Your task to perform on an android device: turn off priority inbox in the gmail app Image 0: 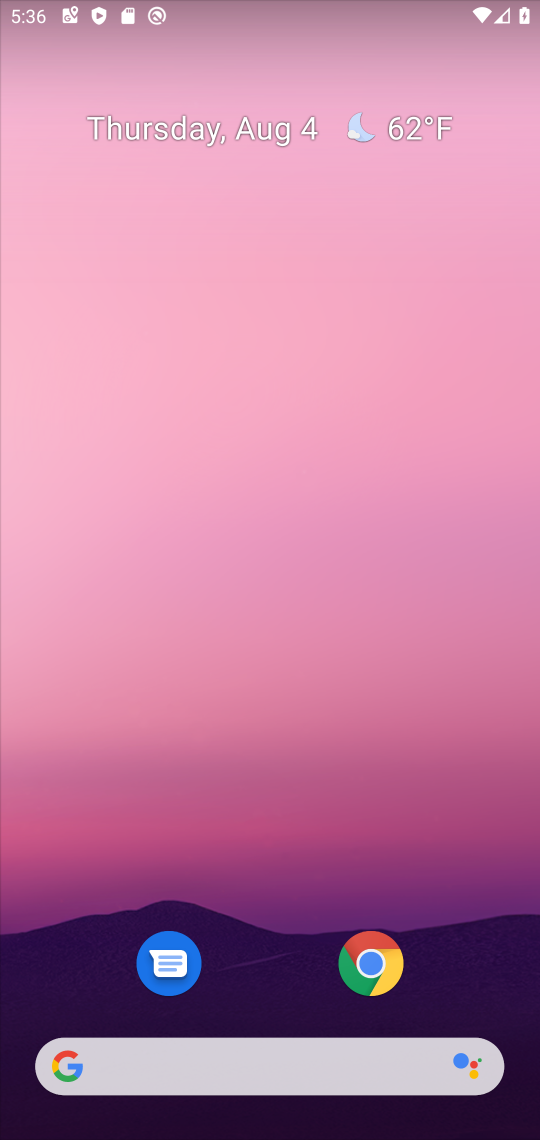
Step 0: press home button
Your task to perform on an android device: turn off priority inbox in the gmail app Image 1: 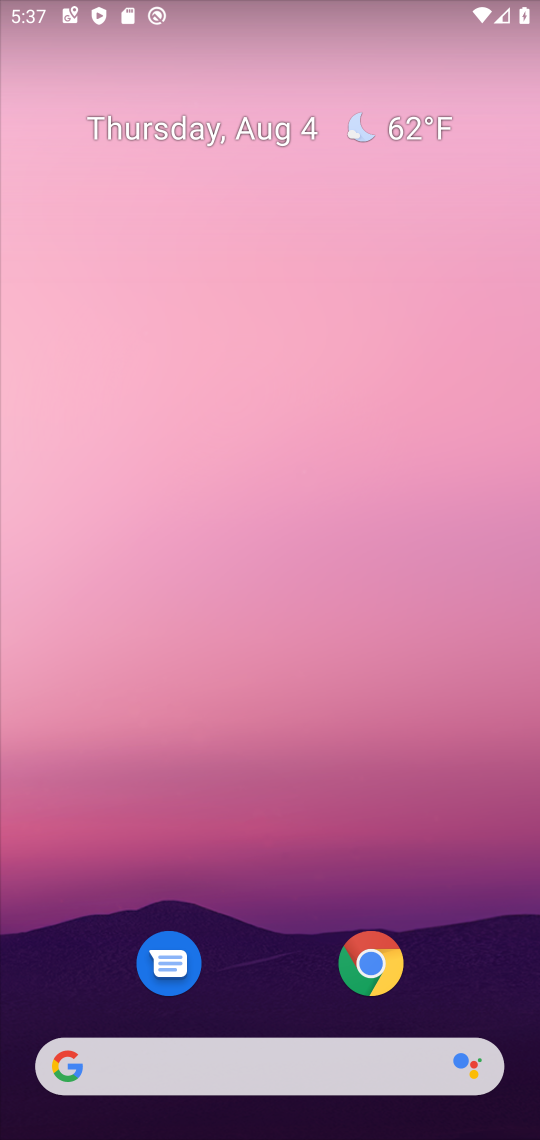
Step 1: drag from (271, 912) to (271, 131)
Your task to perform on an android device: turn off priority inbox in the gmail app Image 2: 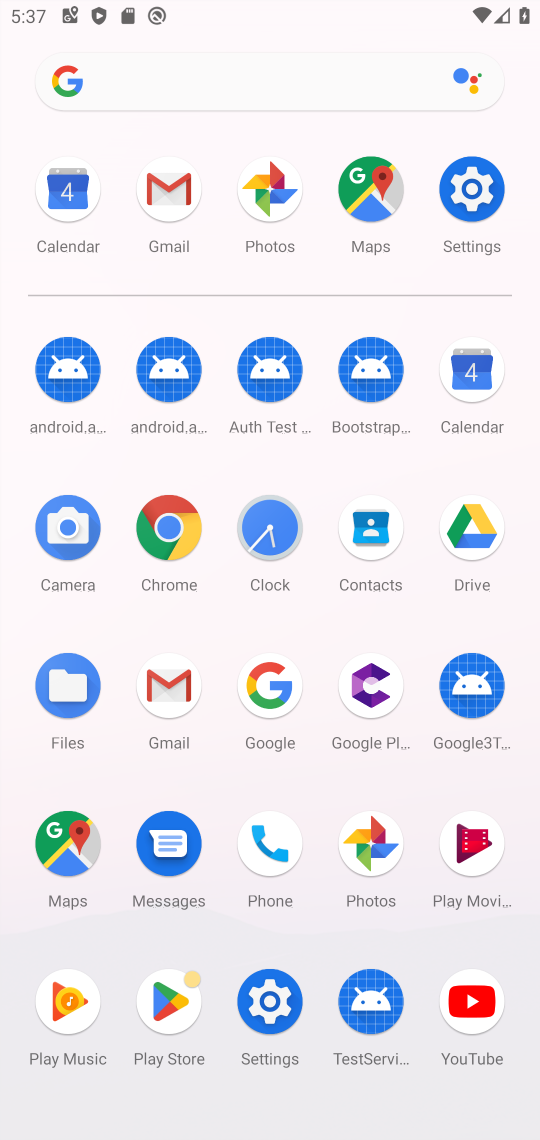
Step 2: click (169, 674)
Your task to perform on an android device: turn off priority inbox in the gmail app Image 3: 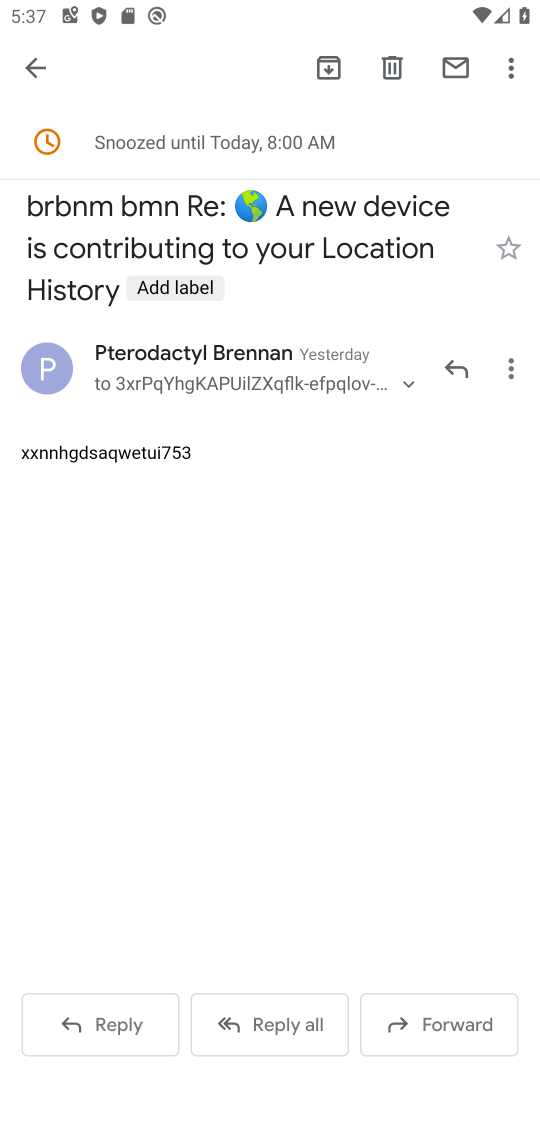
Step 3: click (30, 68)
Your task to perform on an android device: turn off priority inbox in the gmail app Image 4: 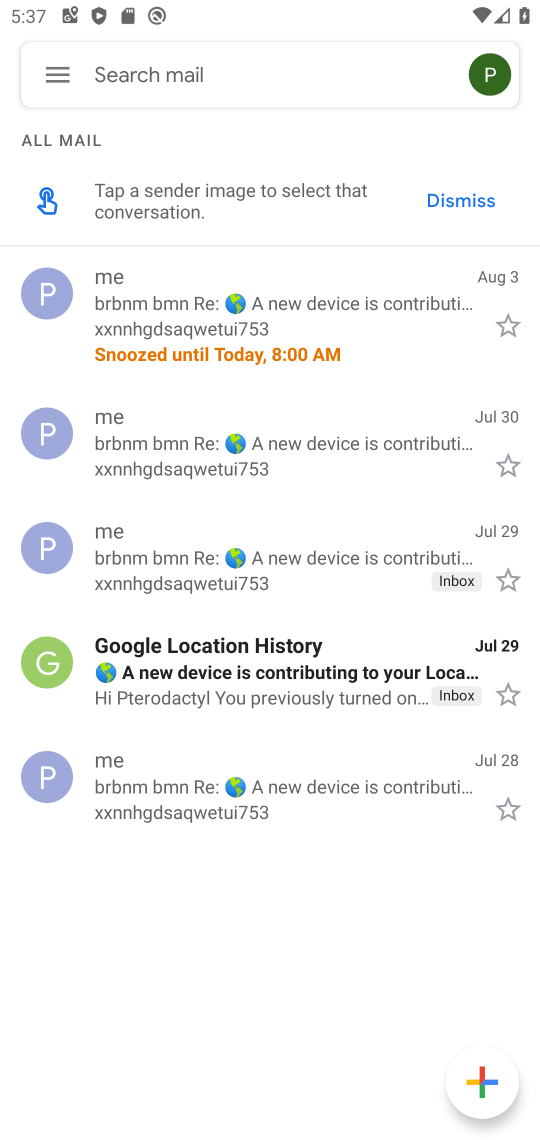
Step 4: click (47, 82)
Your task to perform on an android device: turn off priority inbox in the gmail app Image 5: 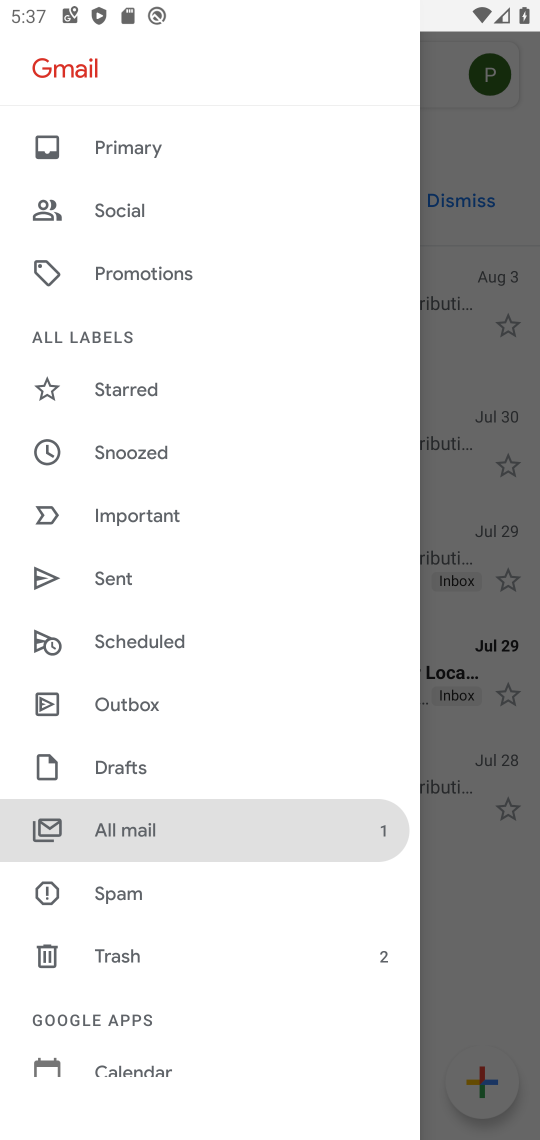
Step 5: drag from (208, 1002) to (248, 449)
Your task to perform on an android device: turn off priority inbox in the gmail app Image 6: 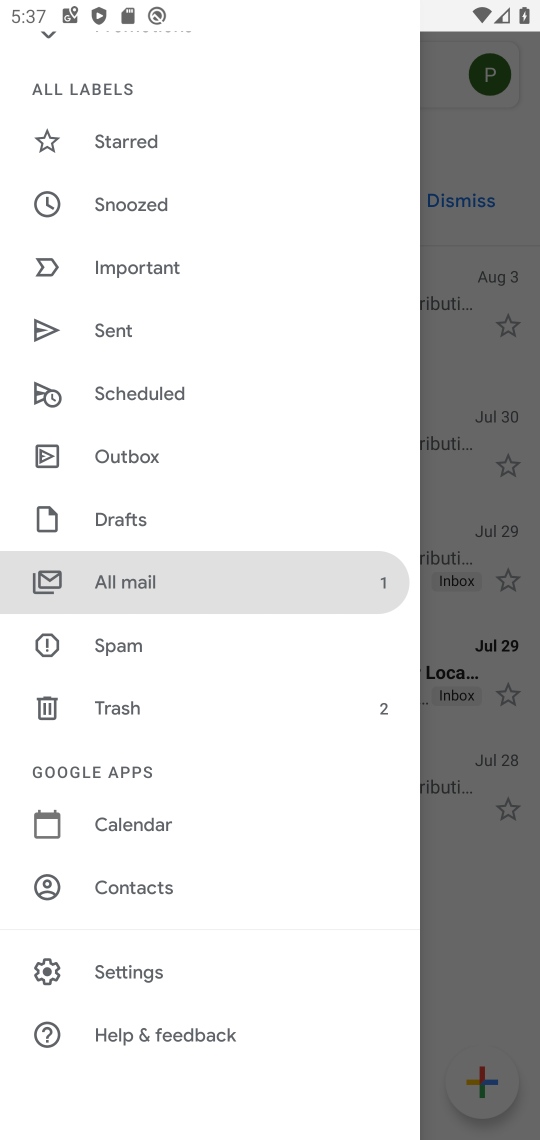
Step 6: click (140, 966)
Your task to perform on an android device: turn off priority inbox in the gmail app Image 7: 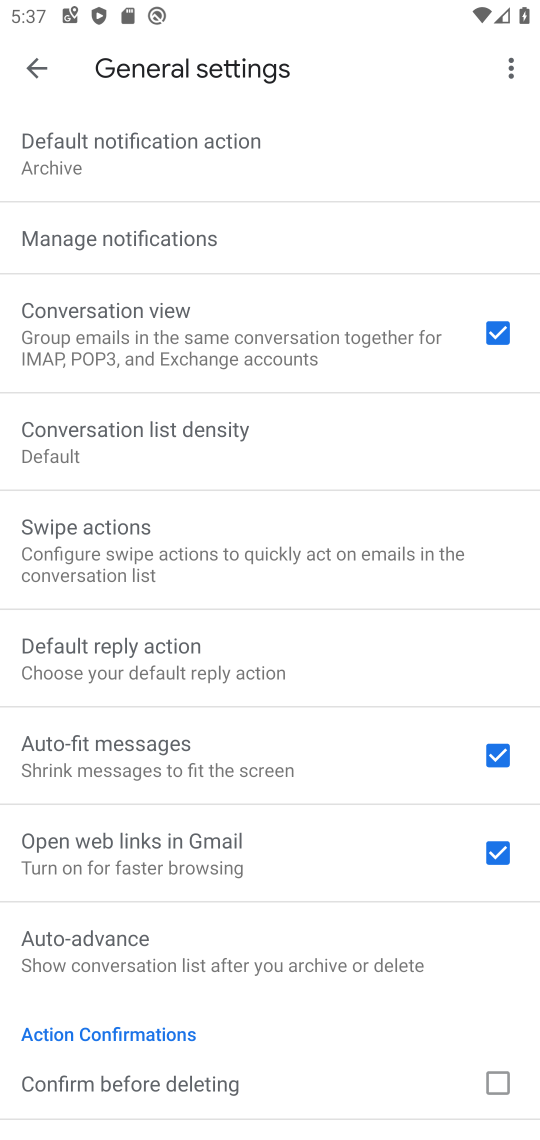
Step 7: click (24, 59)
Your task to perform on an android device: turn off priority inbox in the gmail app Image 8: 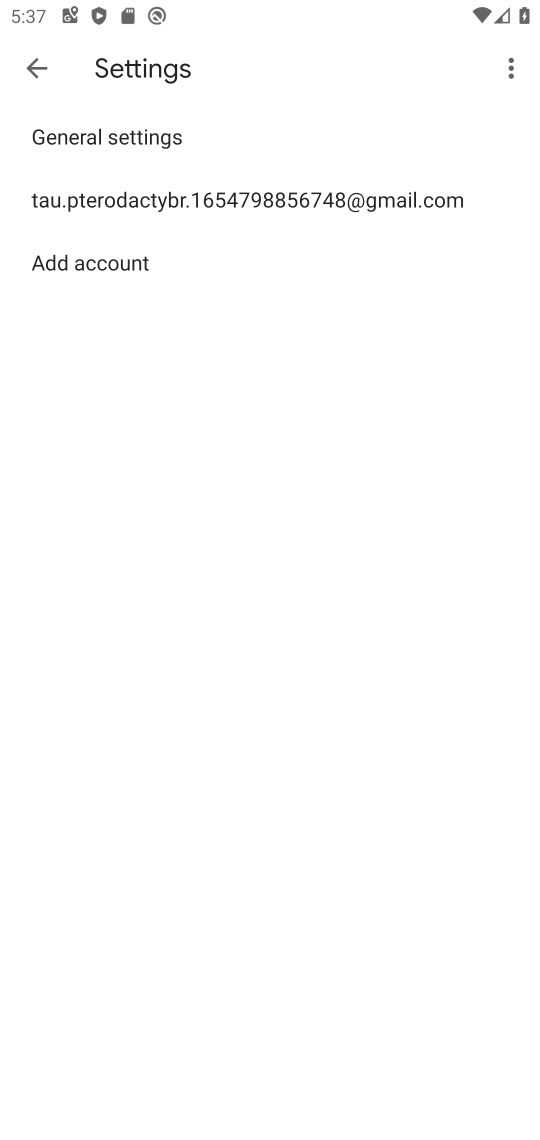
Step 8: click (145, 203)
Your task to perform on an android device: turn off priority inbox in the gmail app Image 9: 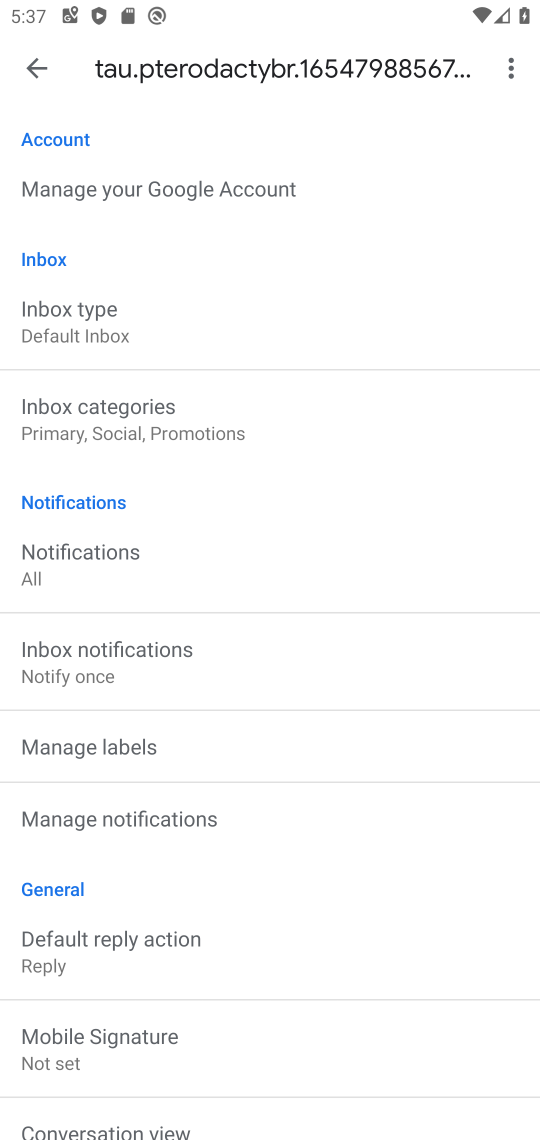
Step 9: click (92, 318)
Your task to perform on an android device: turn off priority inbox in the gmail app Image 10: 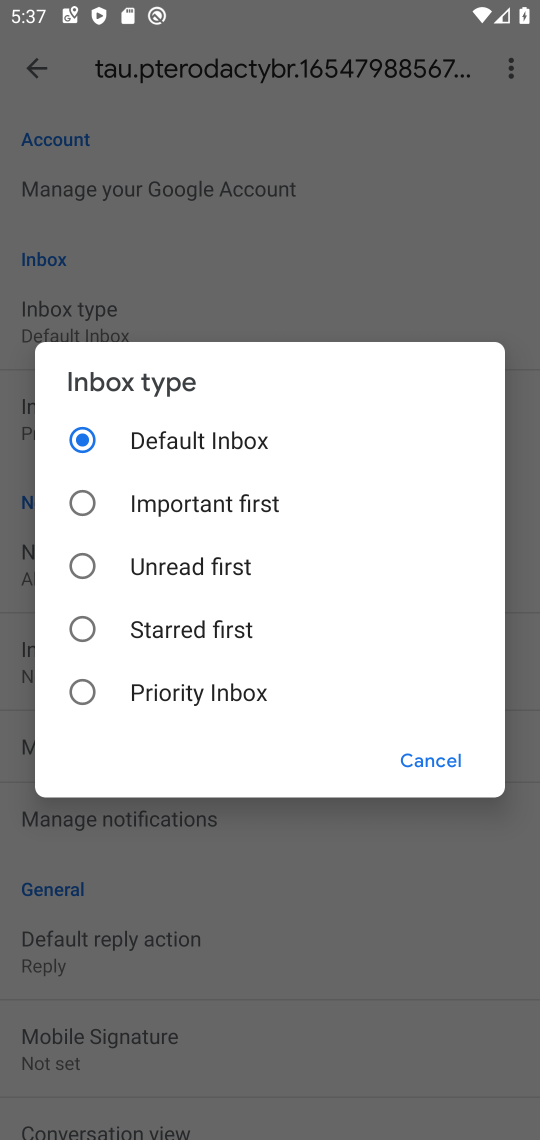
Step 10: task complete